Your task to perform on an android device: What's the news in Taiwan? Image 0: 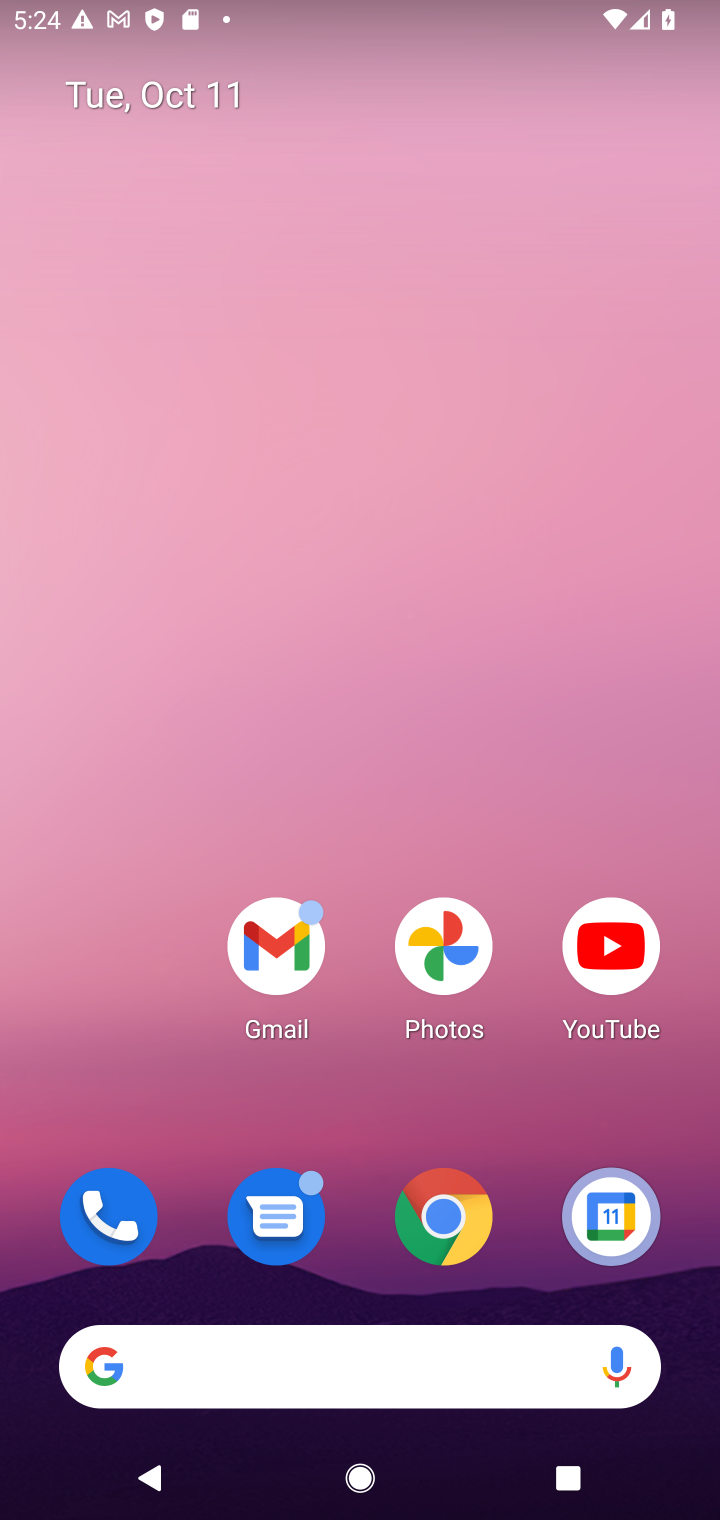
Step 0: click (442, 1212)
Your task to perform on an android device: What's the news in Taiwan? Image 1: 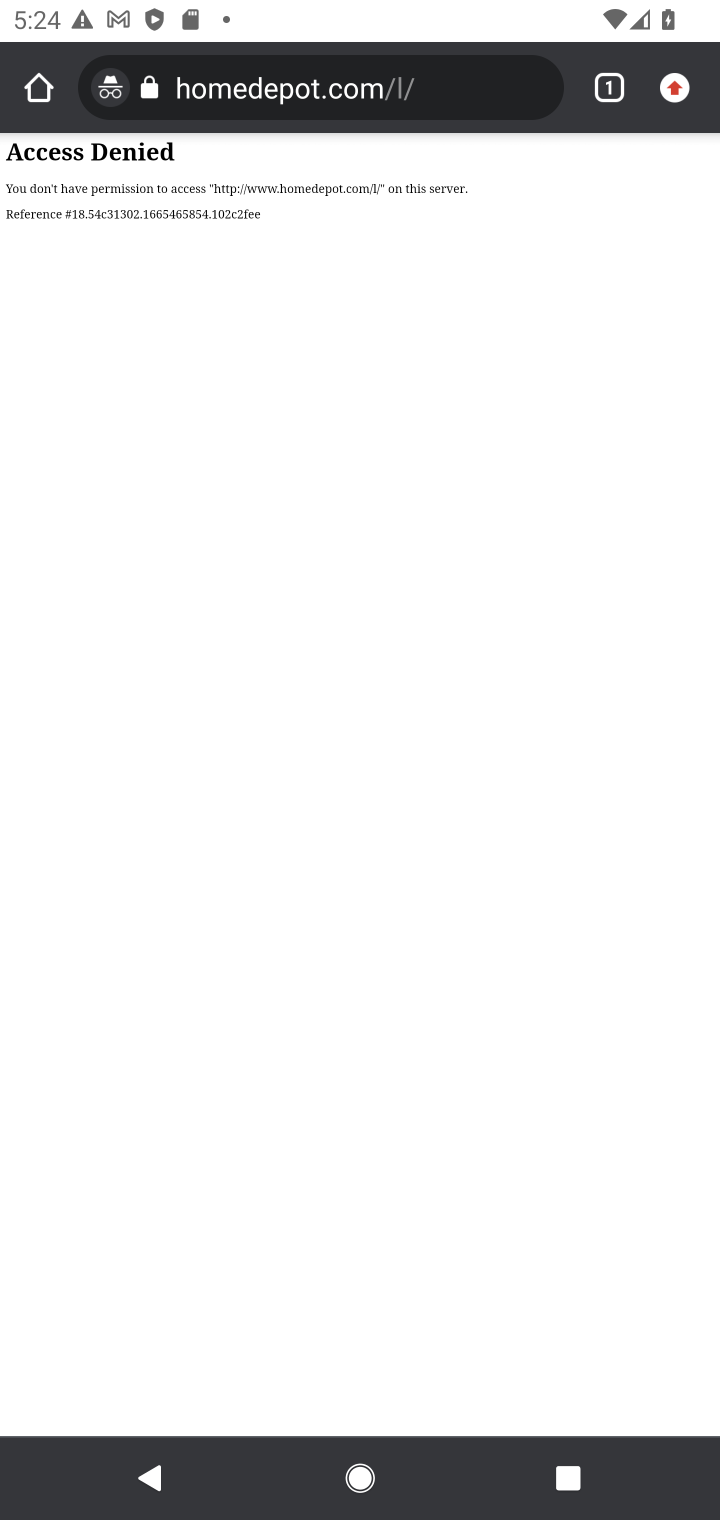
Step 1: click (305, 86)
Your task to perform on an android device: What's the news in Taiwan? Image 2: 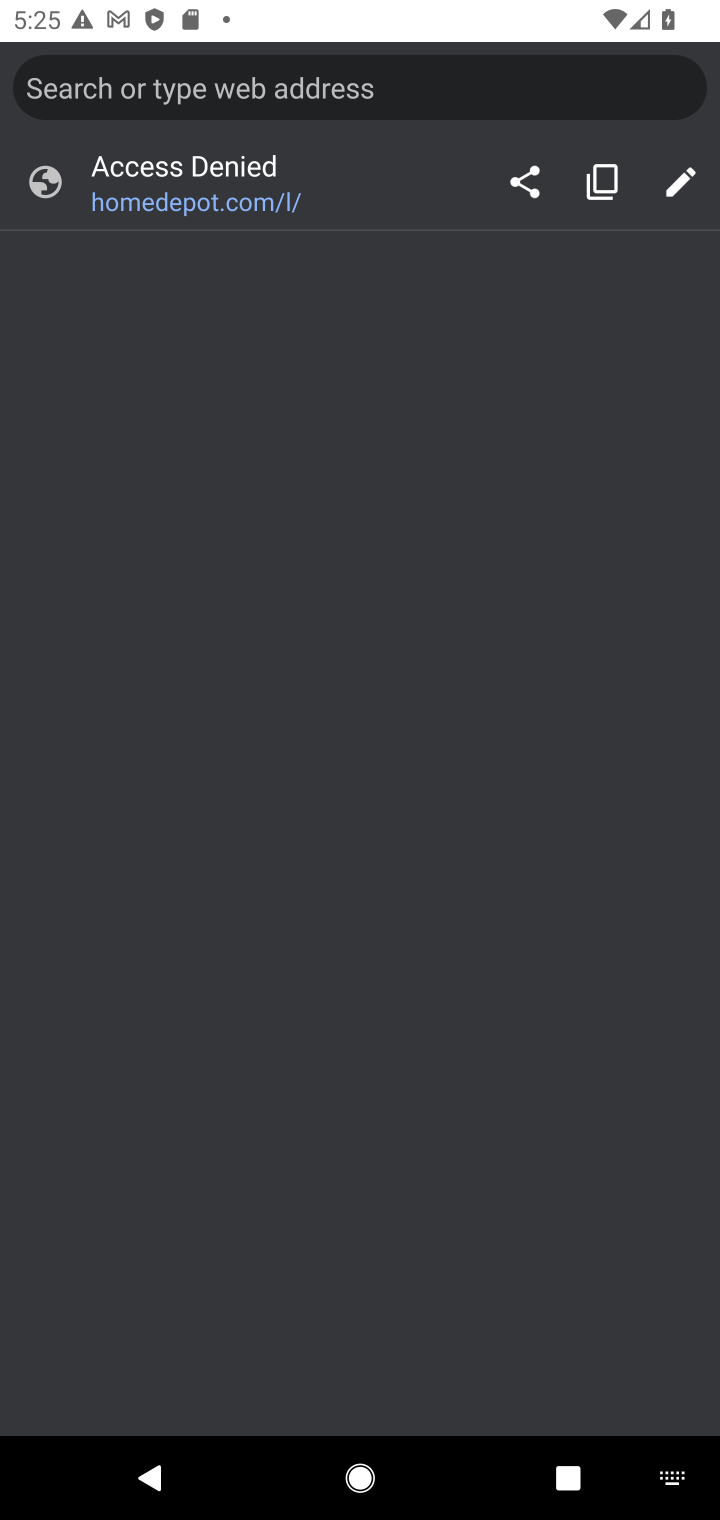
Step 2: type "What's the news in Taiwan?"
Your task to perform on an android device: What's the news in Taiwan? Image 3: 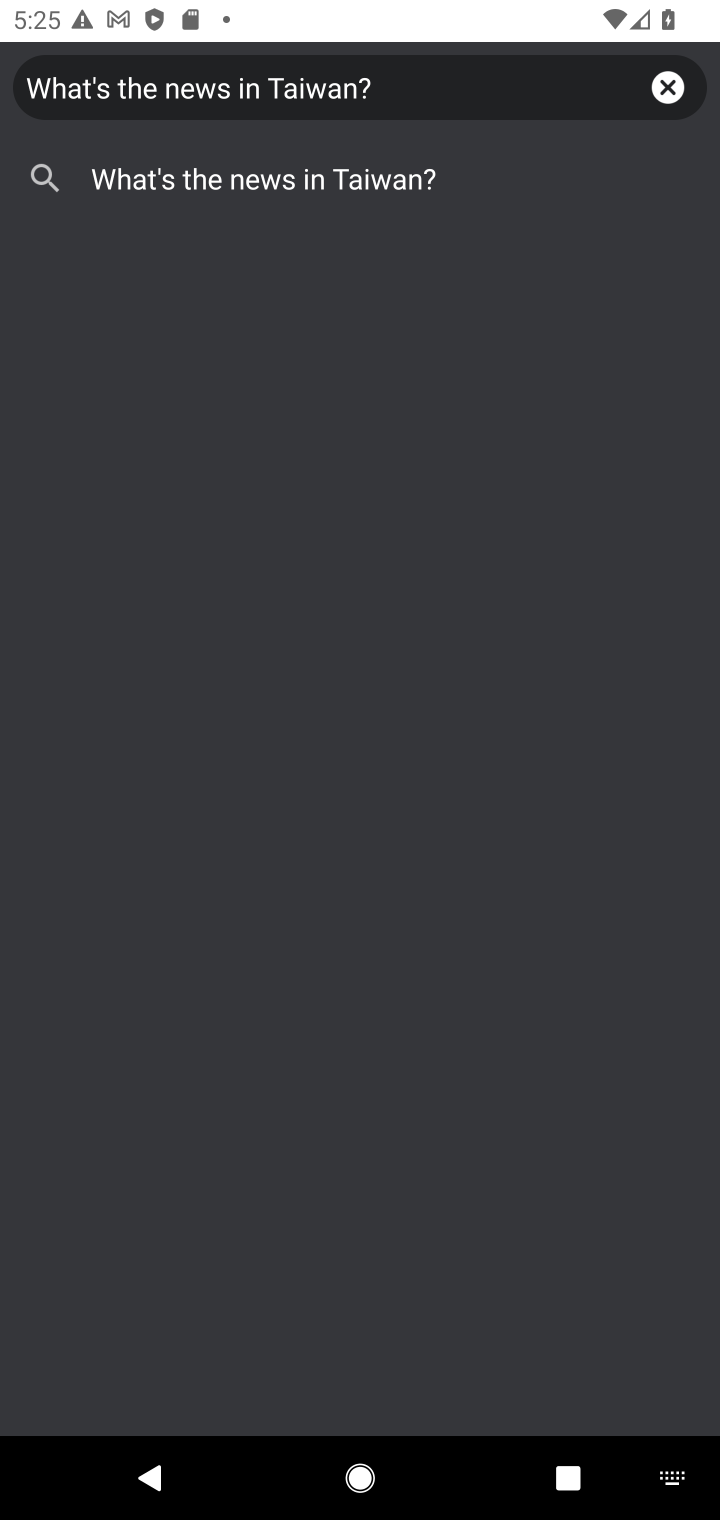
Step 3: click (303, 195)
Your task to perform on an android device: What's the news in Taiwan? Image 4: 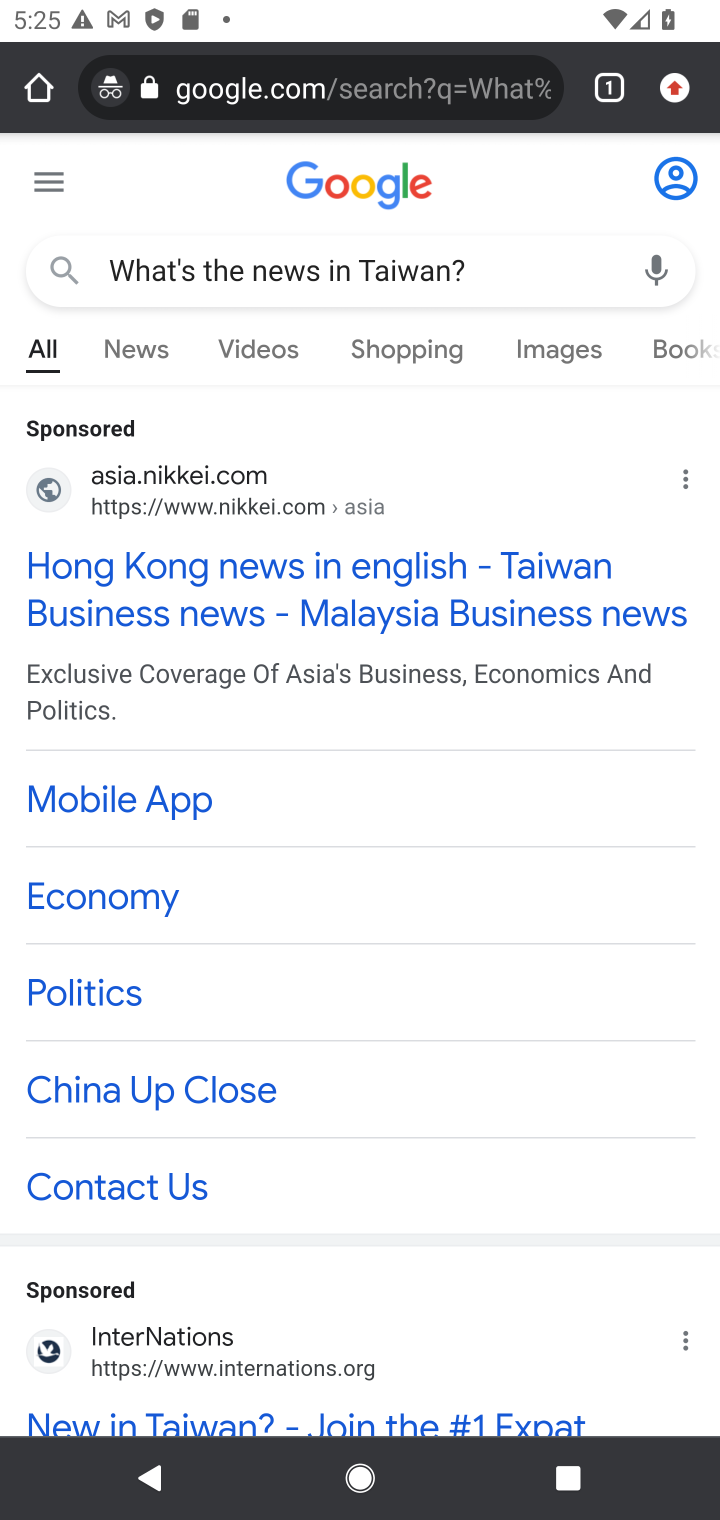
Step 4: drag from (347, 1288) to (423, 850)
Your task to perform on an android device: What's the news in Taiwan? Image 5: 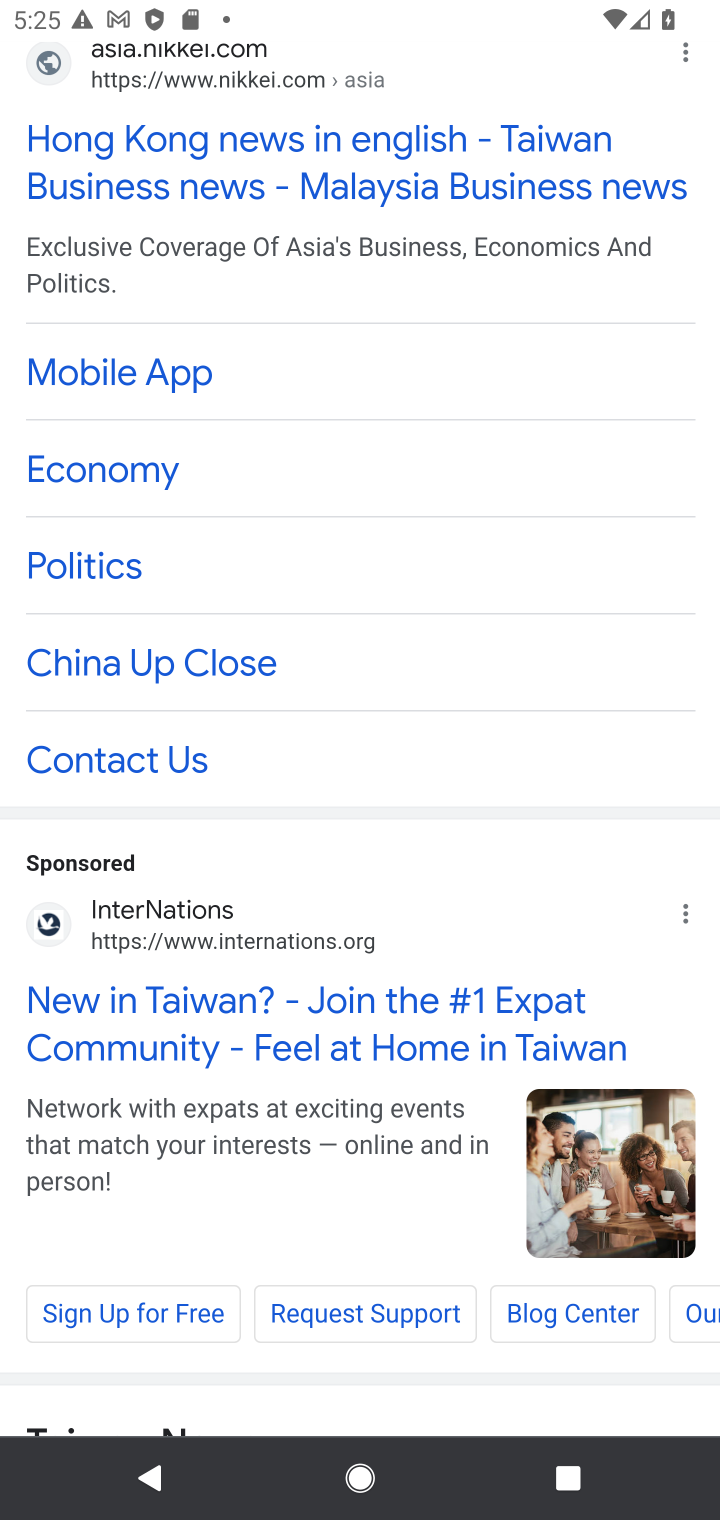
Step 5: drag from (218, 1175) to (335, 853)
Your task to perform on an android device: What's the news in Taiwan? Image 6: 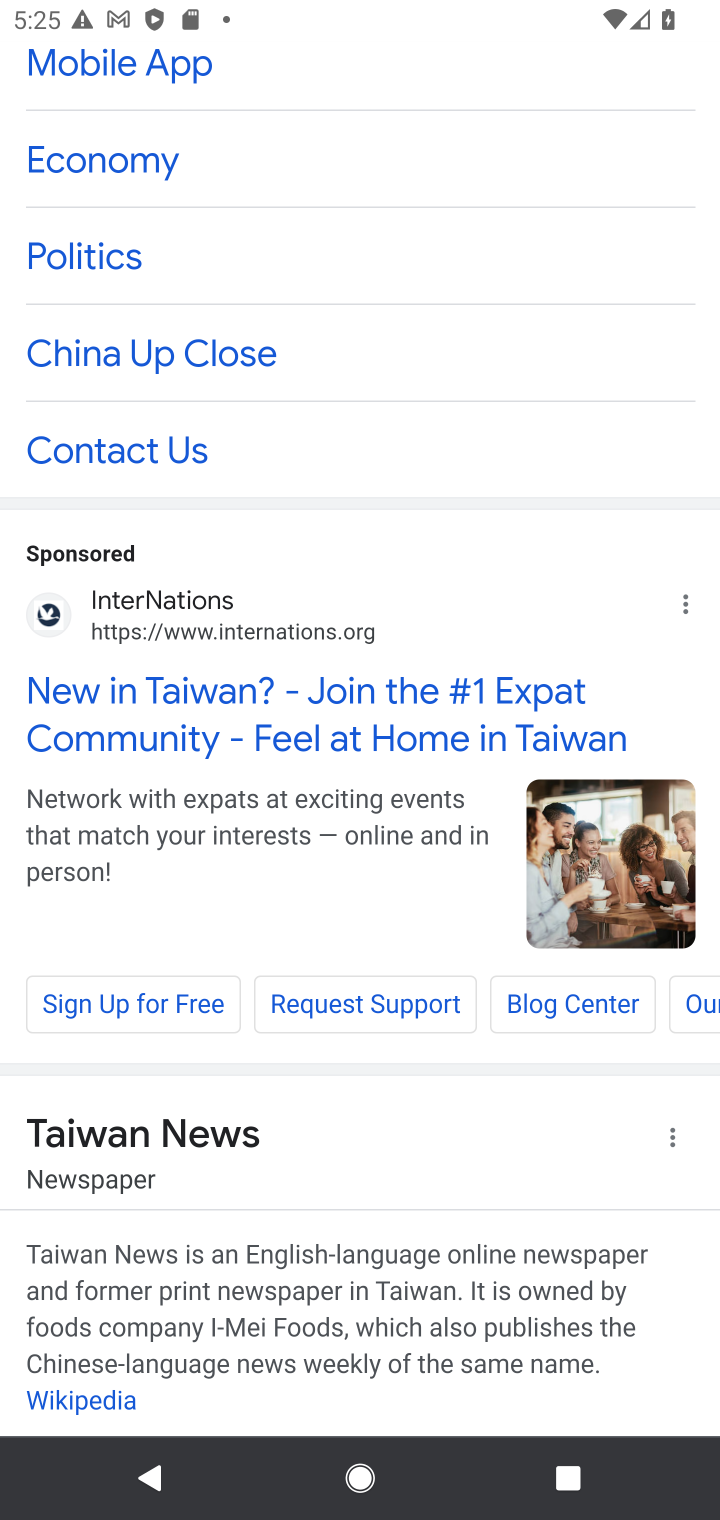
Step 6: drag from (247, 1153) to (414, 803)
Your task to perform on an android device: What's the news in Taiwan? Image 7: 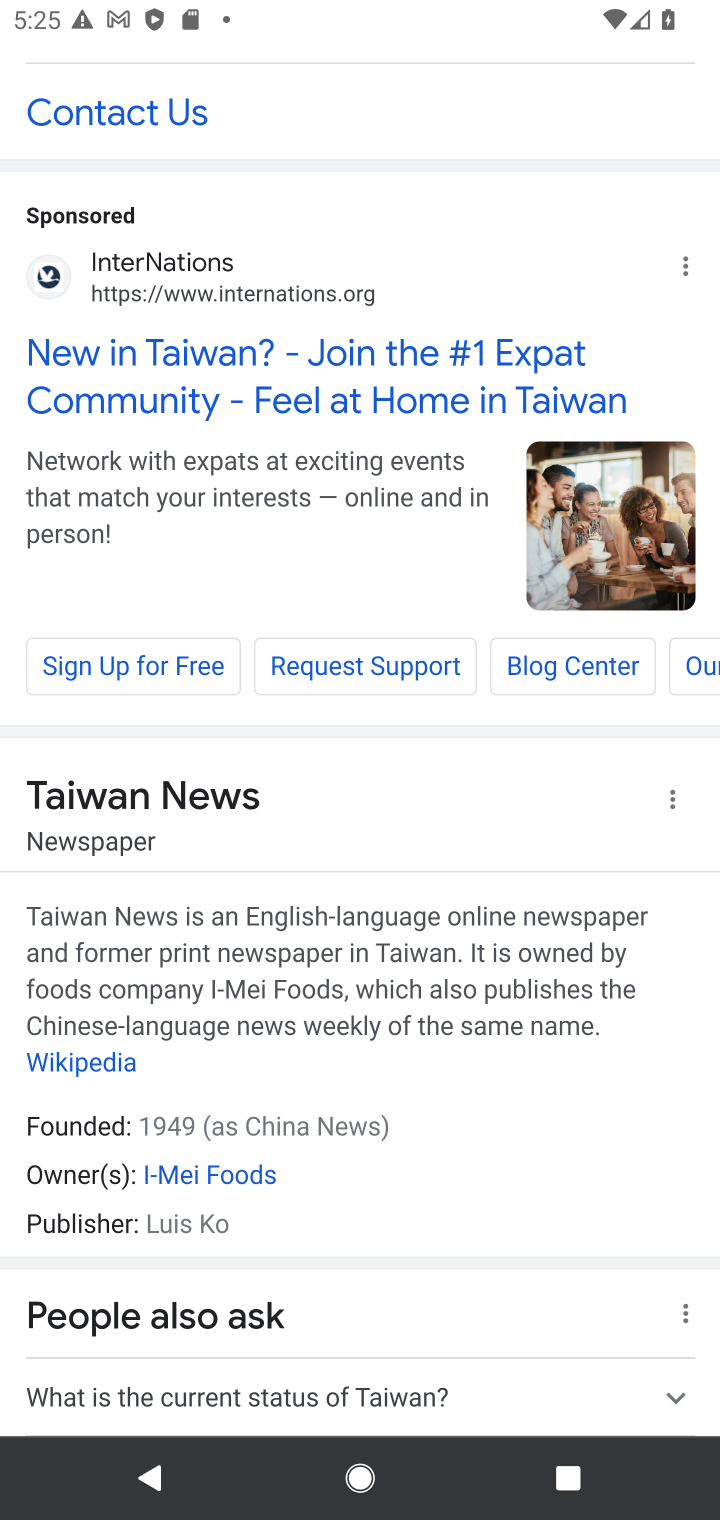
Step 7: click (221, 814)
Your task to perform on an android device: What's the news in Taiwan? Image 8: 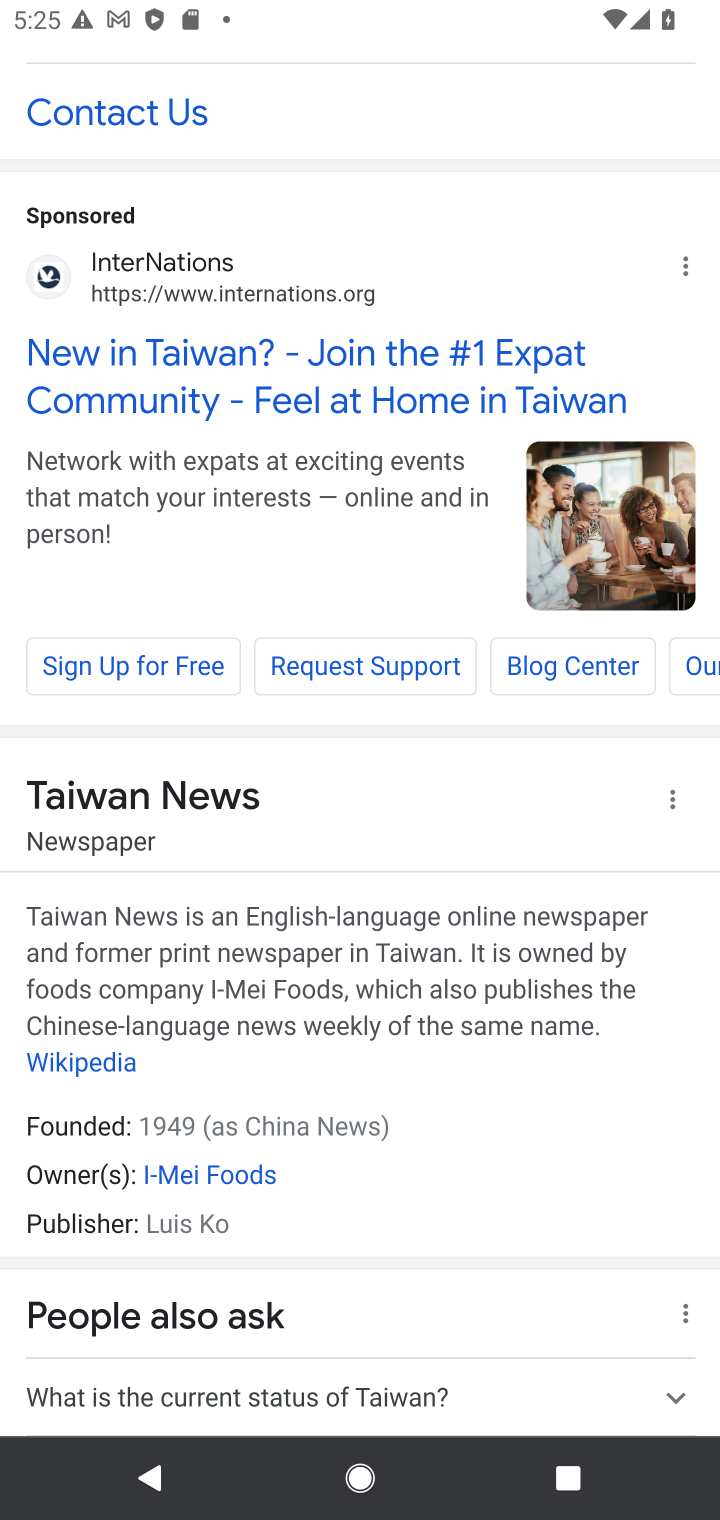
Step 8: click (143, 798)
Your task to perform on an android device: What's the news in Taiwan? Image 9: 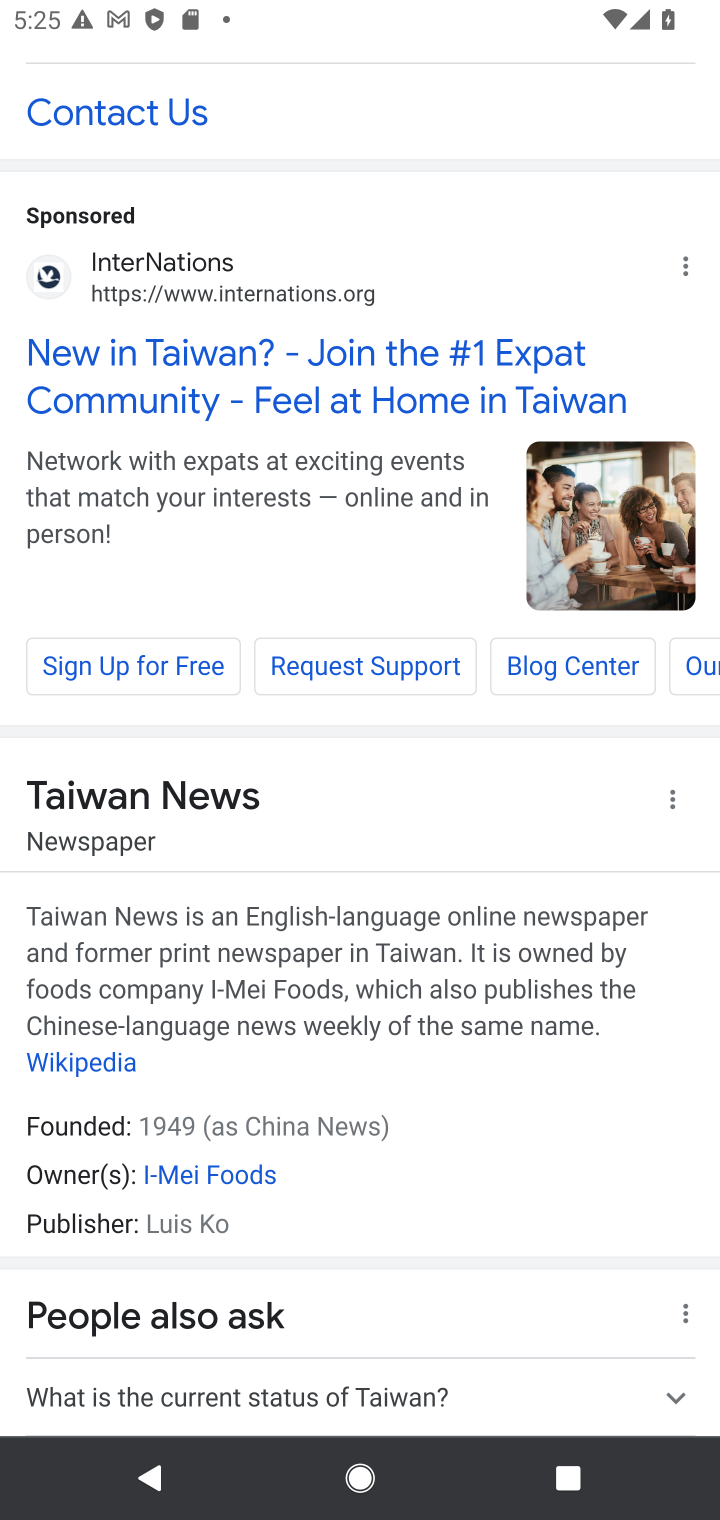
Step 9: drag from (303, 1222) to (423, 992)
Your task to perform on an android device: What's the news in Taiwan? Image 10: 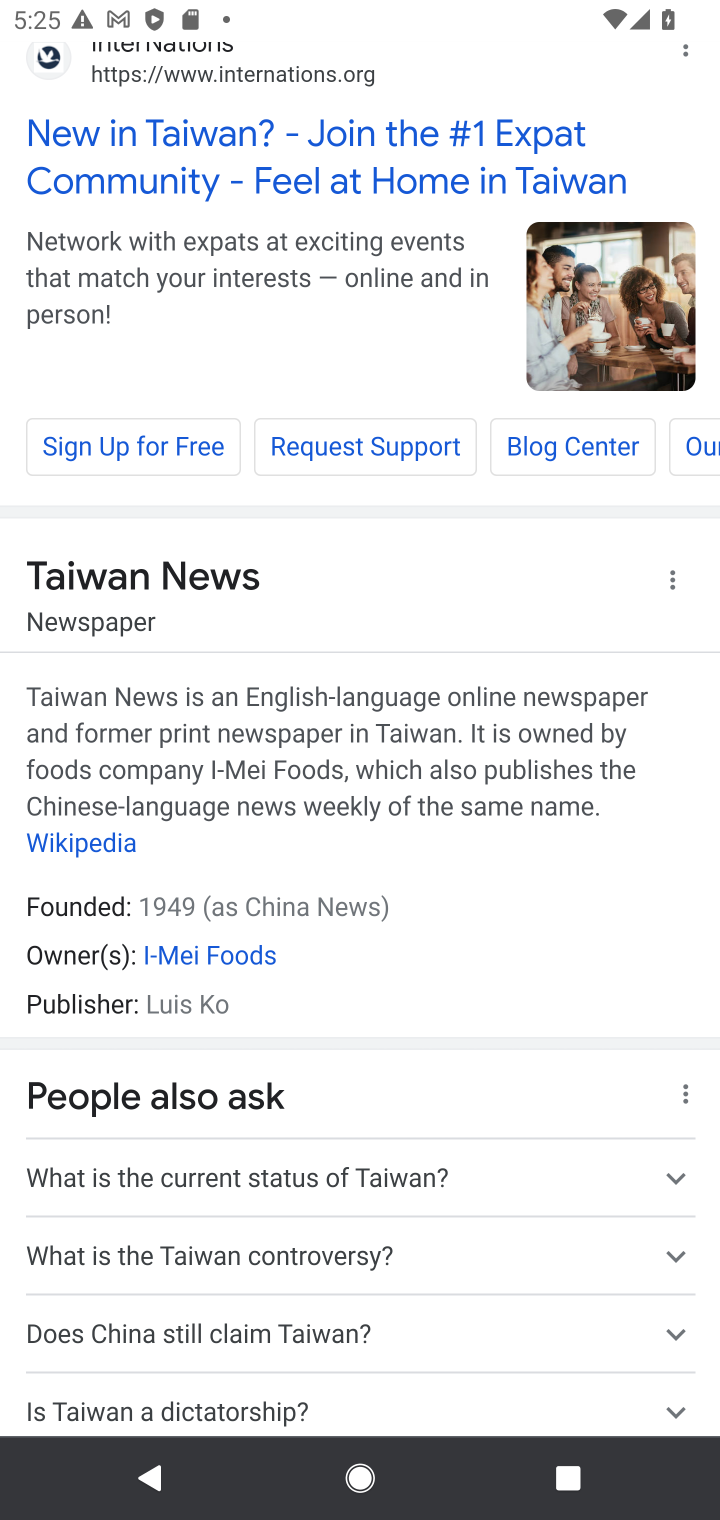
Step 10: drag from (319, 1285) to (452, 984)
Your task to perform on an android device: What's the news in Taiwan? Image 11: 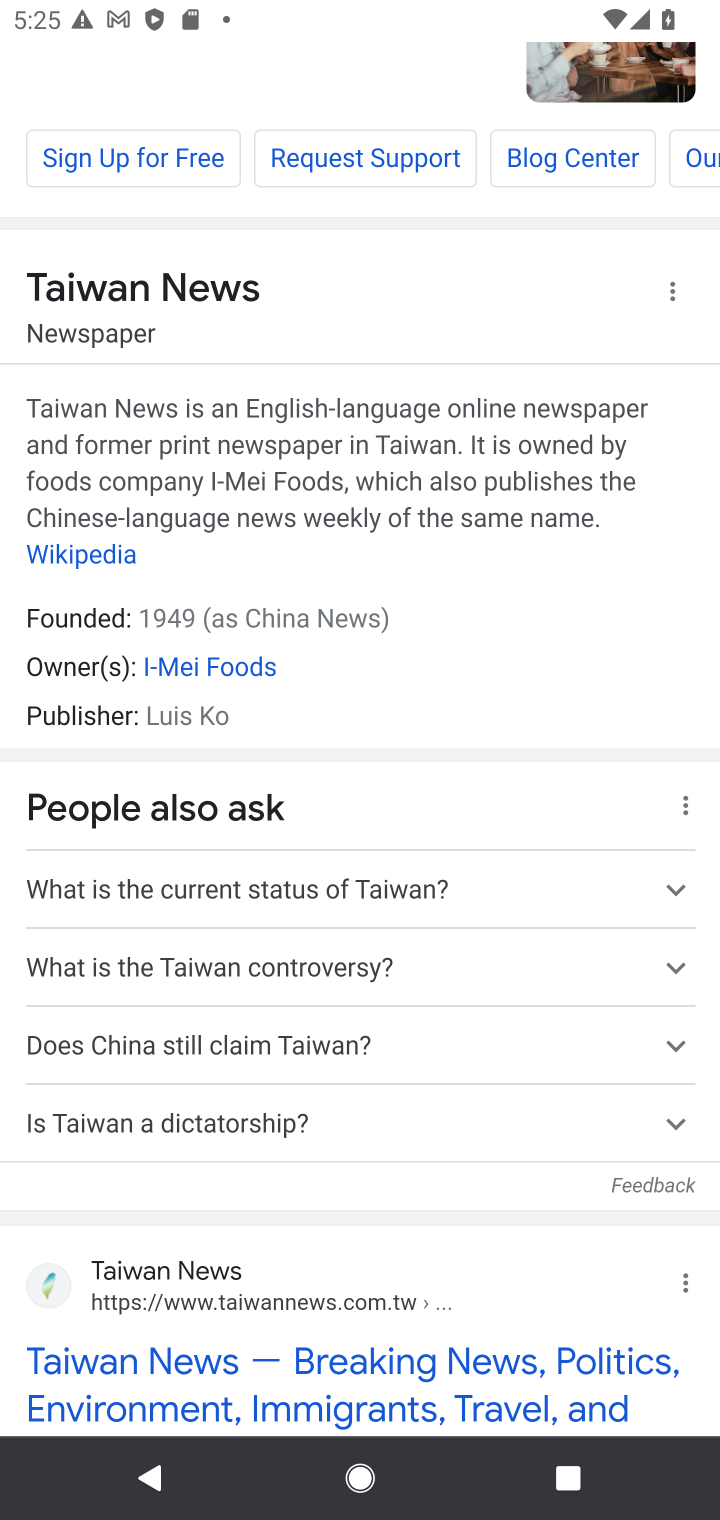
Step 11: drag from (311, 1304) to (449, 994)
Your task to perform on an android device: What's the news in Taiwan? Image 12: 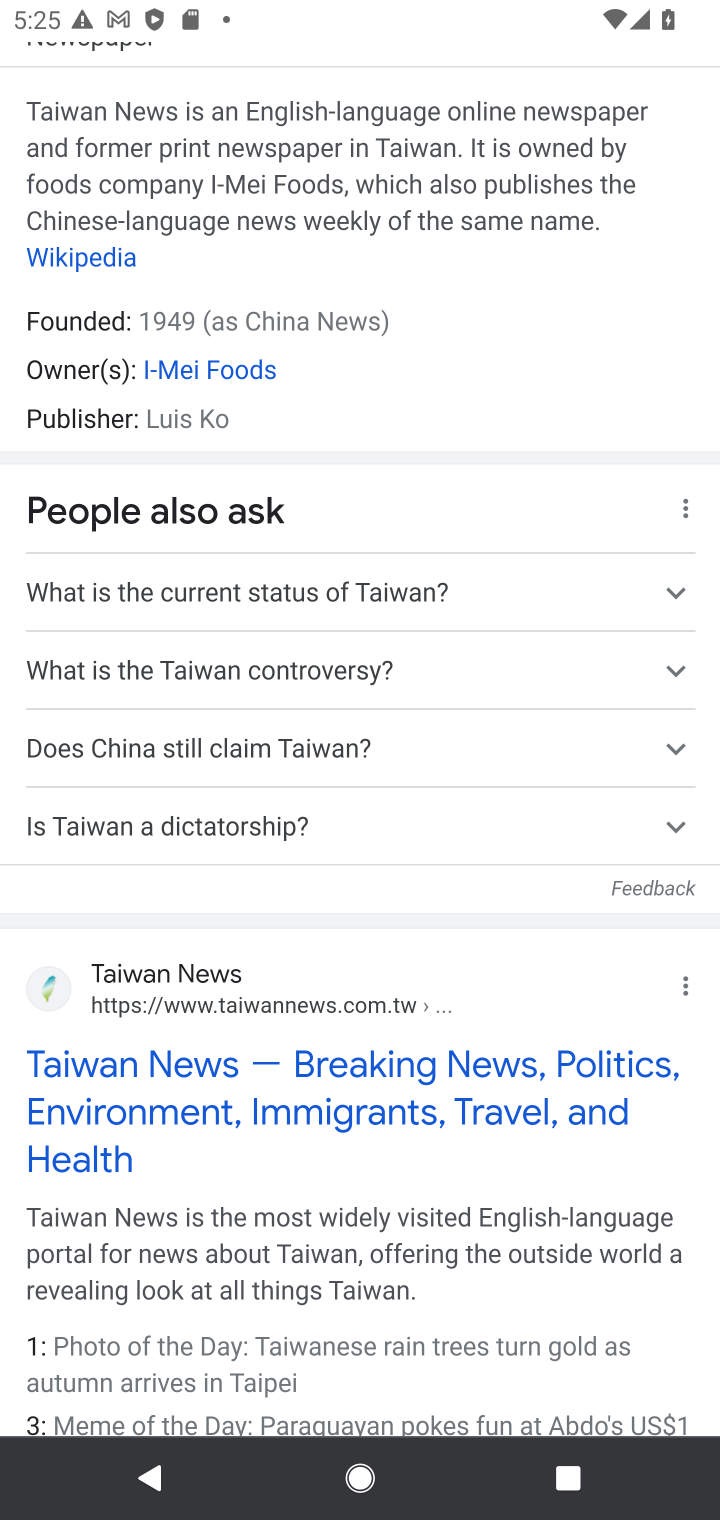
Step 12: click (370, 1073)
Your task to perform on an android device: What's the news in Taiwan? Image 13: 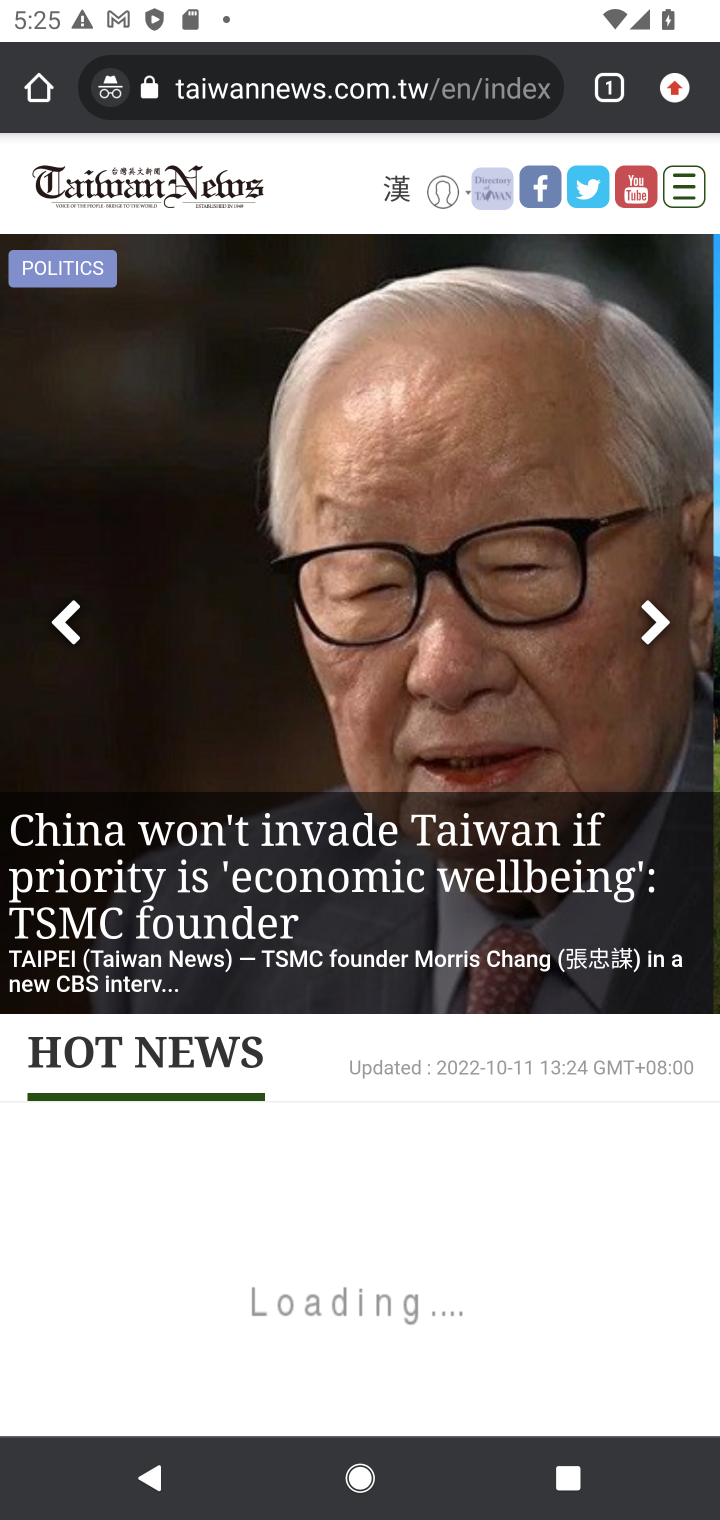
Step 13: task complete